Your task to perform on an android device: empty trash in google photos Image 0: 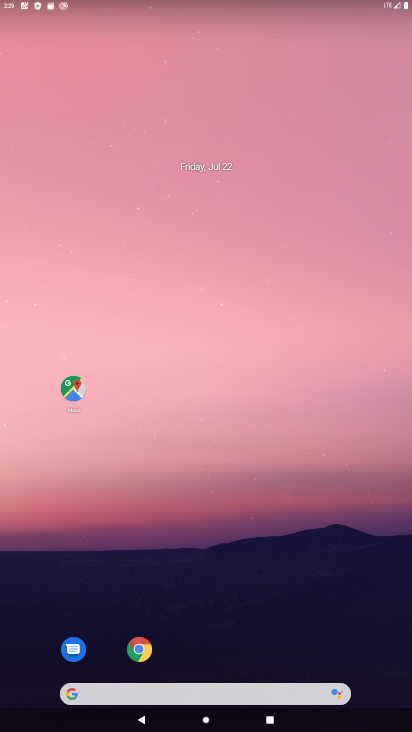
Step 0: drag from (218, 328) to (238, 222)
Your task to perform on an android device: empty trash in google photos Image 1: 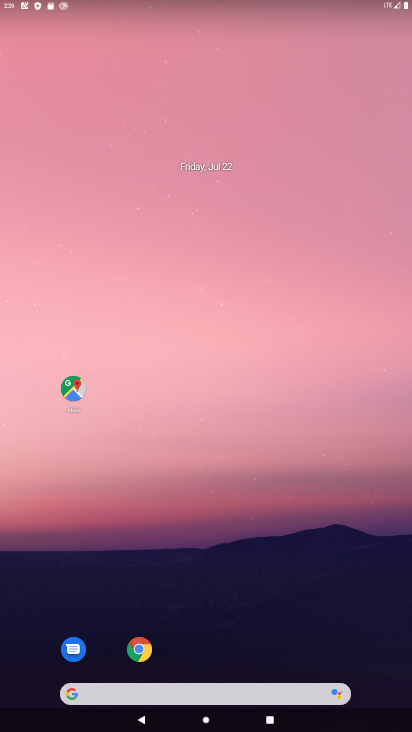
Step 1: drag from (190, 678) to (250, 268)
Your task to perform on an android device: empty trash in google photos Image 2: 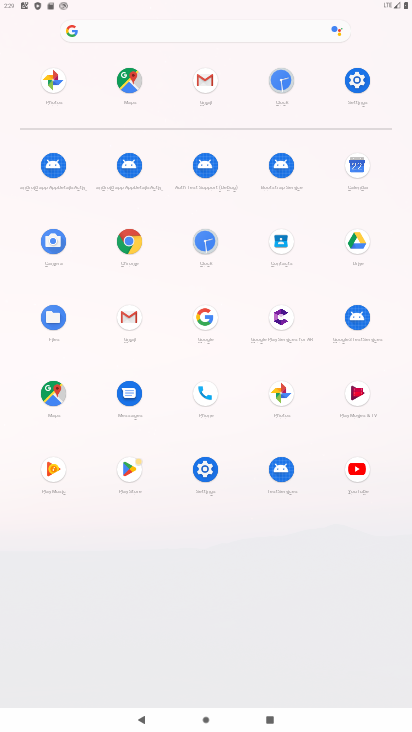
Step 2: click (280, 388)
Your task to perform on an android device: empty trash in google photos Image 3: 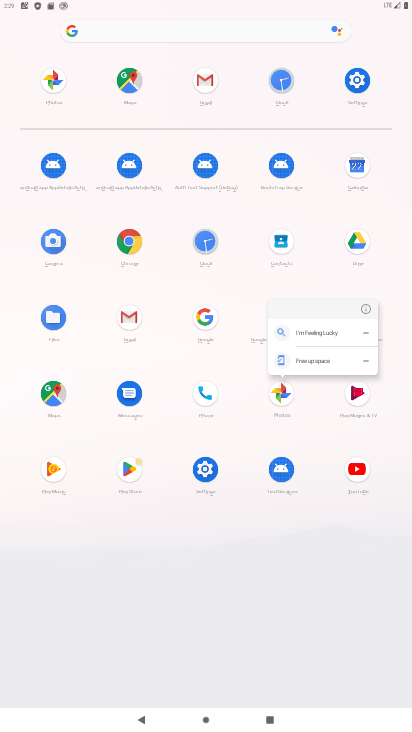
Step 3: click (371, 304)
Your task to perform on an android device: empty trash in google photos Image 4: 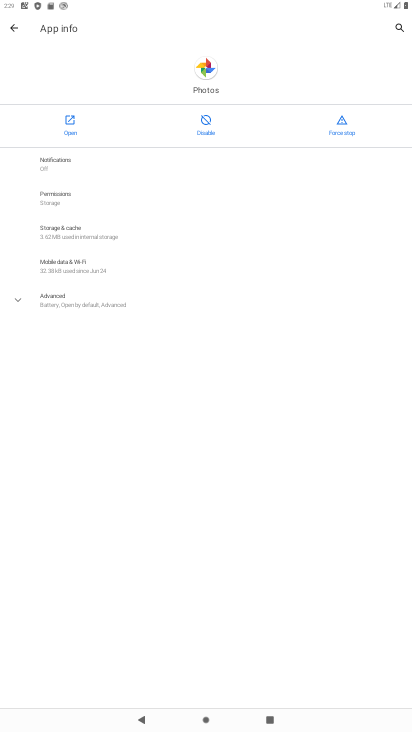
Step 4: click (74, 134)
Your task to perform on an android device: empty trash in google photos Image 5: 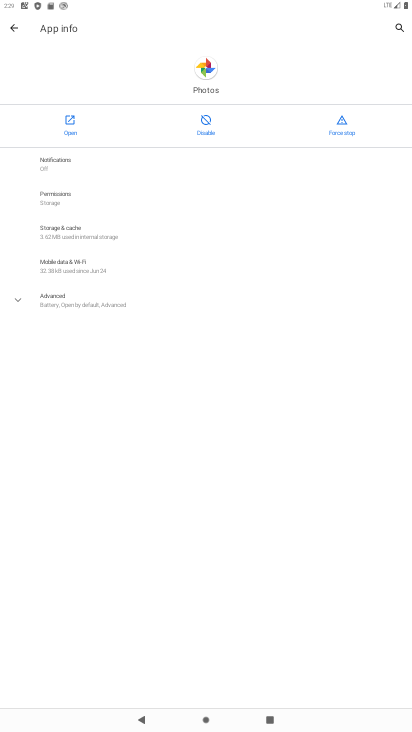
Step 5: click (74, 134)
Your task to perform on an android device: empty trash in google photos Image 6: 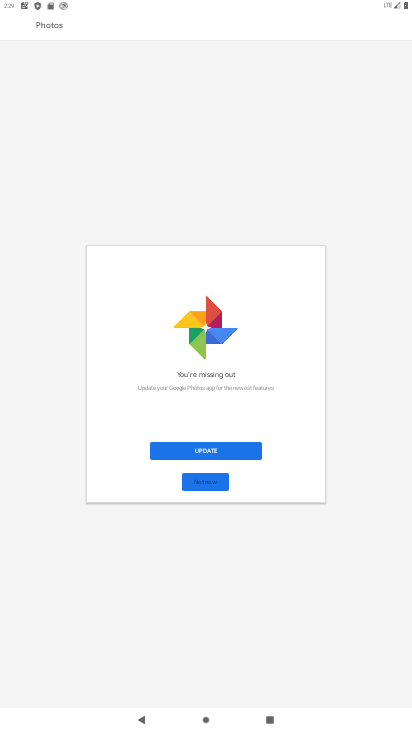
Step 6: click (192, 482)
Your task to perform on an android device: empty trash in google photos Image 7: 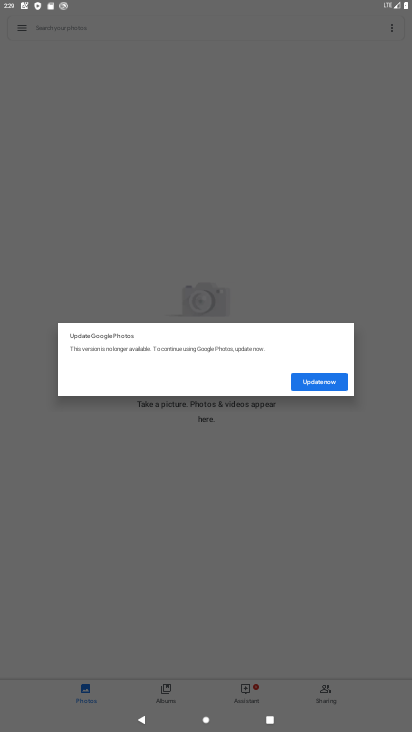
Step 7: drag from (201, 550) to (250, 284)
Your task to perform on an android device: empty trash in google photos Image 8: 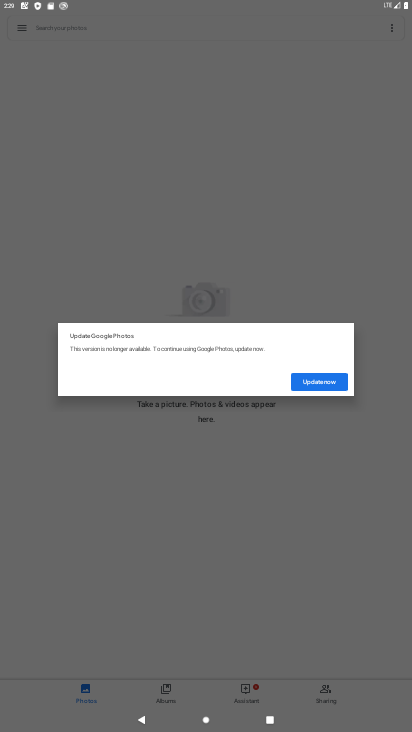
Step 8: click (309, 384)
Your task to perform on an android device: empty trash in google photos Image 9: 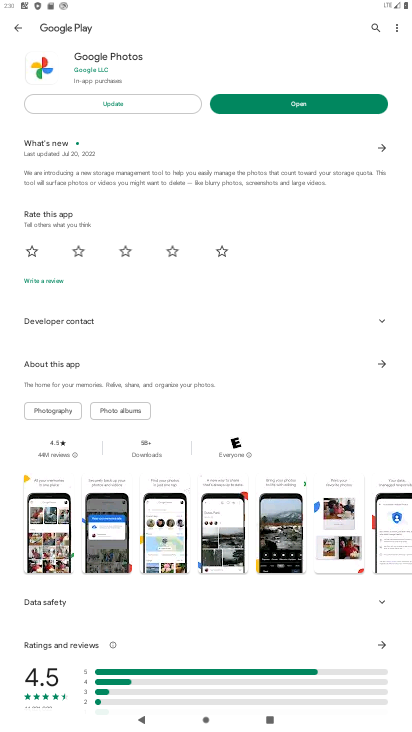
Step 9: drag from (161, 163) to (274, 645)
Your task to perform on an android device: empty trash in google photos Image 10: 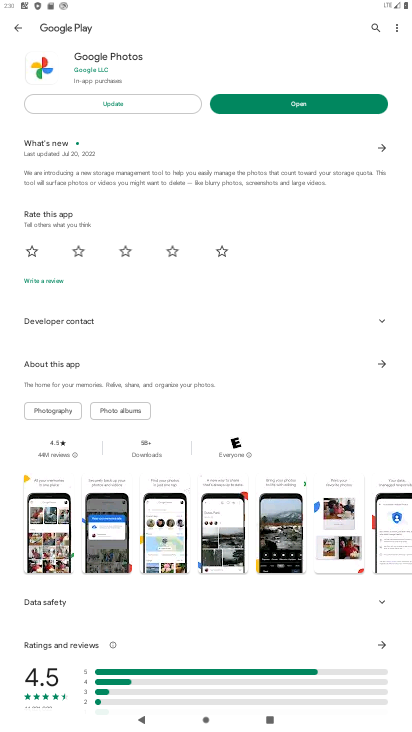
Step 10: click (21, 34)
Your task to perform on an android device: empty trash in google photos Image 11: 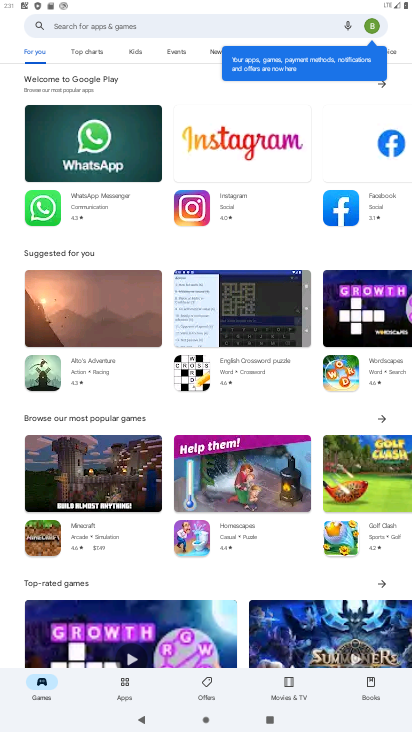
Step 11: drag from (211, 547) to (243, 261)
Your task to perform on an android device: empty trash in google photos Image 12: 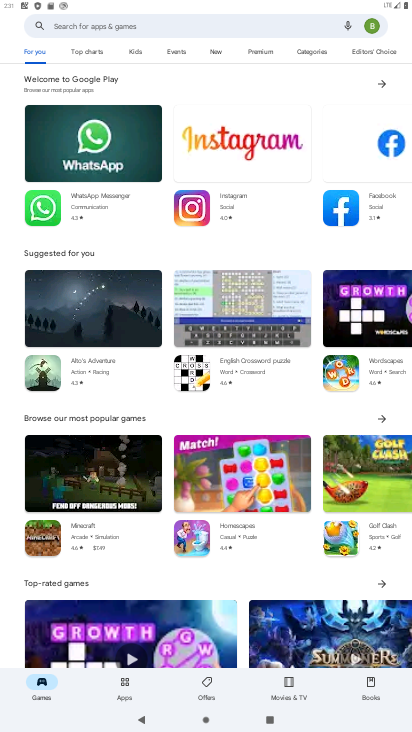
Step 12: press home button
Your task to perform on an android device: empty trash in google photos Image 13: 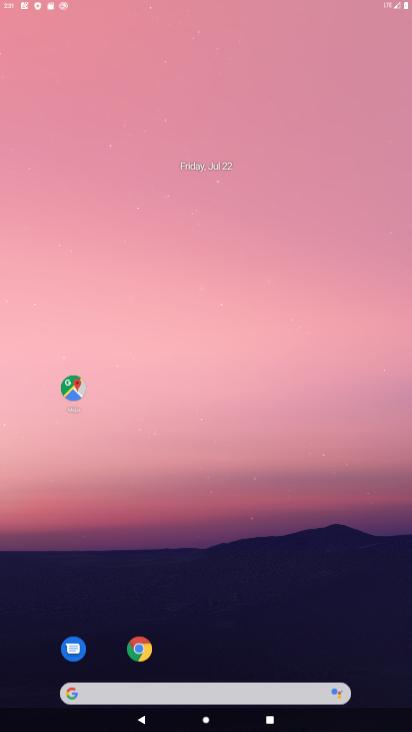
Step 13: drag from (207, 627) to (193, 111)
Your task to perform on an android device: empty trash in google photos Image 14: 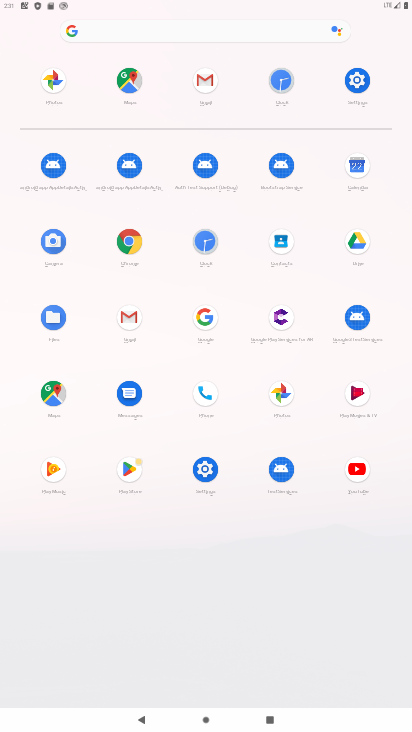
Step 14: click (281, 393)
Your task to perform on an android device: empty trash in google photos Image 15: 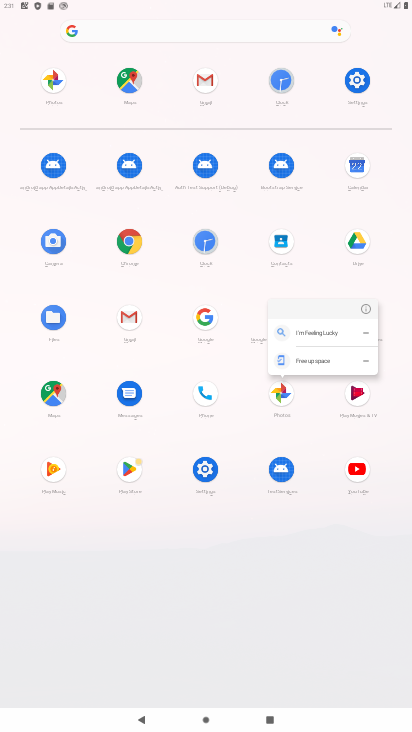
Step 15: click (361, 310)
Your task to perform on an android device: empty trash in google photos Image 16: 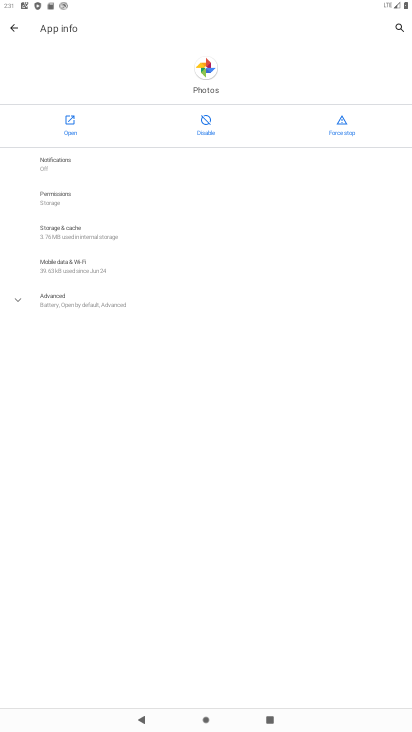
Step 16: click (67, 133)
Your task to perform on an android device: empty trash in google photos Image 17: 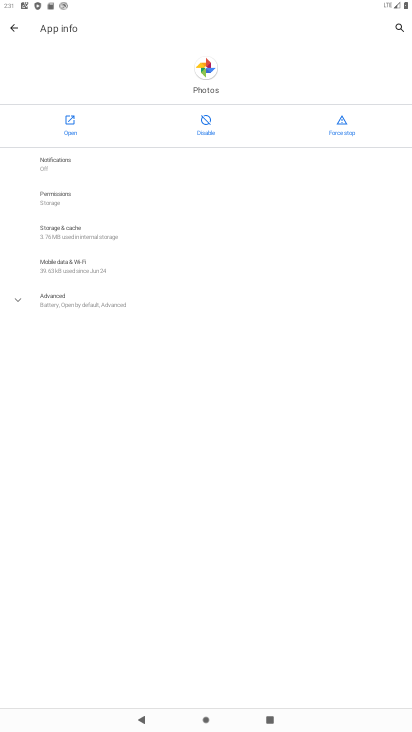
Step 17: drag from (216, 482) to (242, 166)
Your task to perform on an android device: empty trash in google photos Image 18: 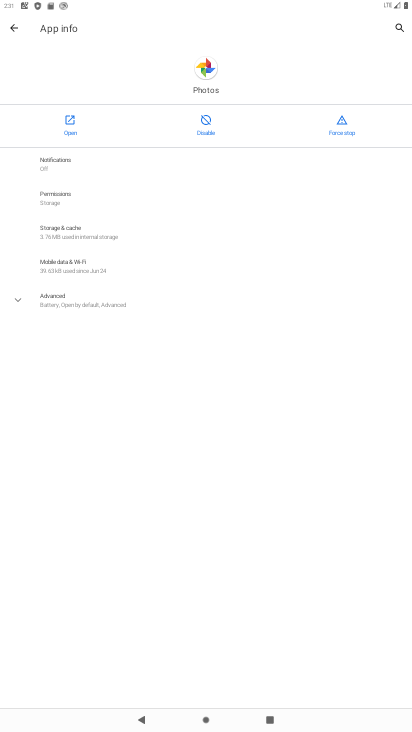
Step 18: click (60, 118)
Your task to perform on an android device: empty trash in google photos Image 19: 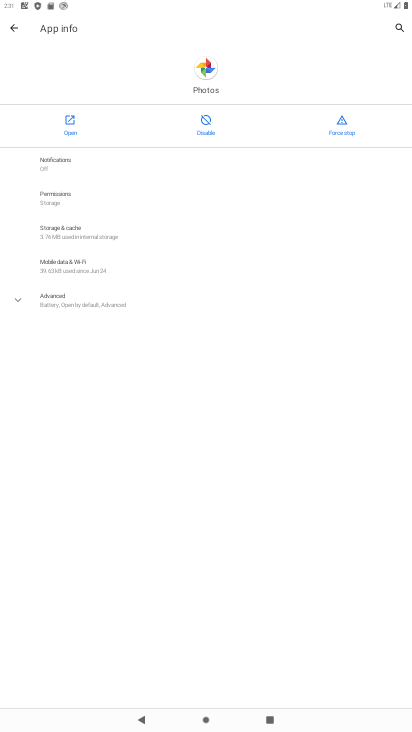
Step 19: click (61, 119)
Your task to perform on an android device: empty trash in google photos Image 20: 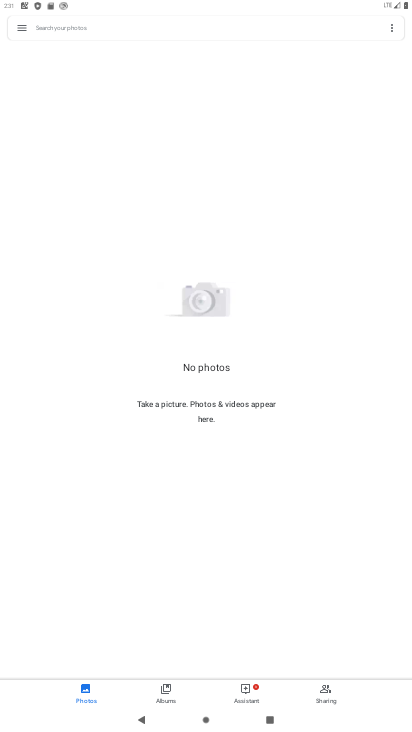
Step 20: drag from (227, 405) to (222, 117)
Your task to perform on an android device: empty trash in google photos Image 21: 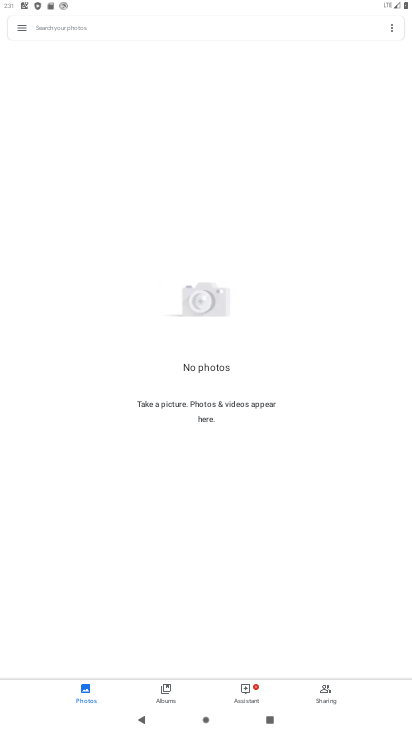
Step 21: click (17, 33)
Your task to perform on an android device: empty trash in google photos Image 22: 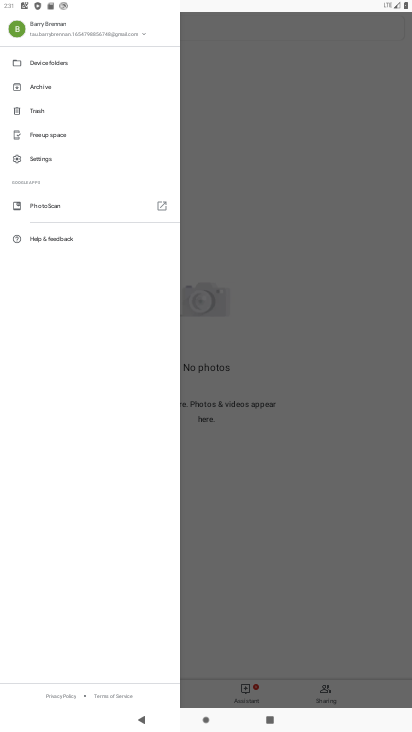
Step 22: click (43, 112)
Your task to perform on an android device: empty trash in google photos Image 23: 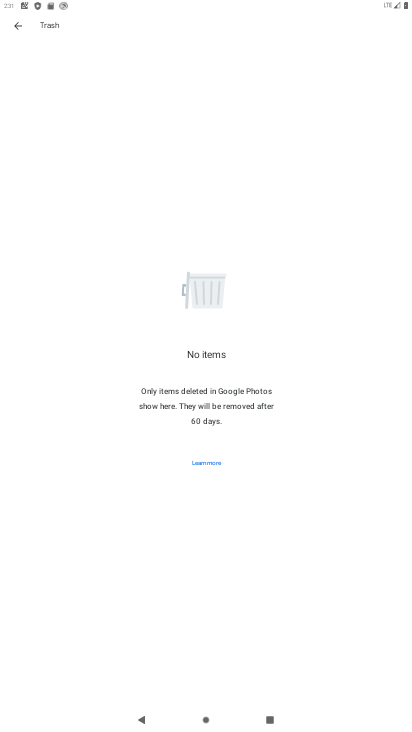
Step 23: drag from (222, 379) to (222, 147)
Your task to perform on an android device: empty trash in google photos Image 24: 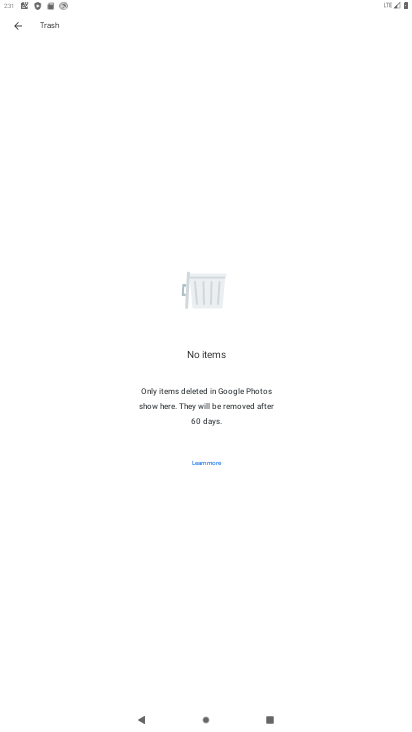
Step 24: drag from (229, 449) to (229, 183)
Your task to perform on an android device: empty trash in google photos Image 25: 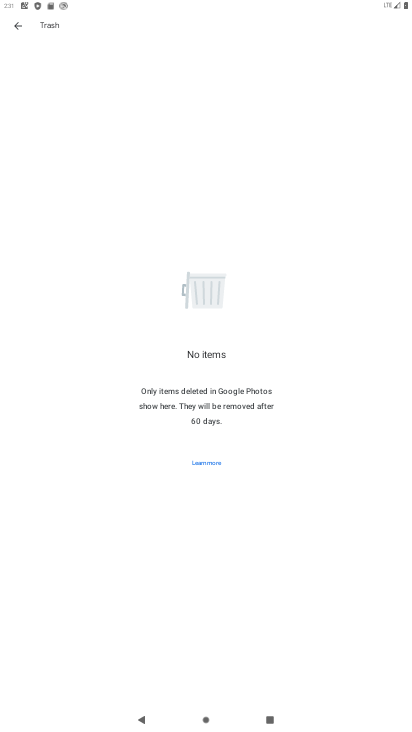
Step 25: click (298, 338)
Your task to perform on an android device: empty trash in google photos Image 26: 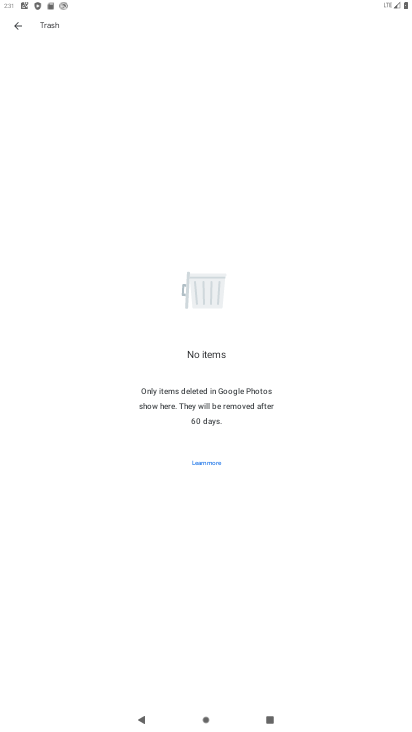
Step 26: task complete